Your task to perform on an android device: Open Amazon Image 0: 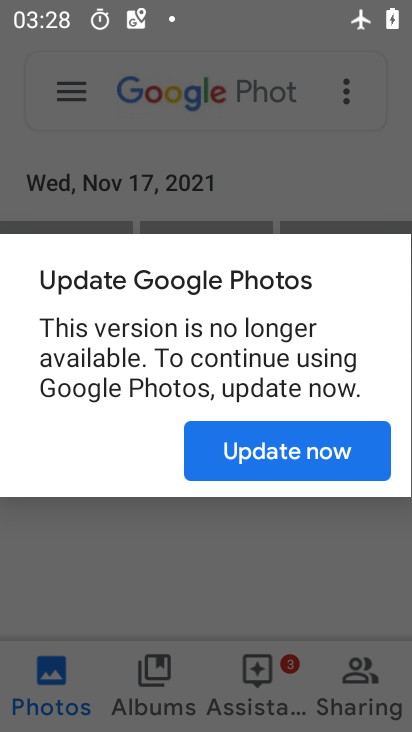
Step 0: press home button
Your task to perform on an android device: Open Amazon Image 1: 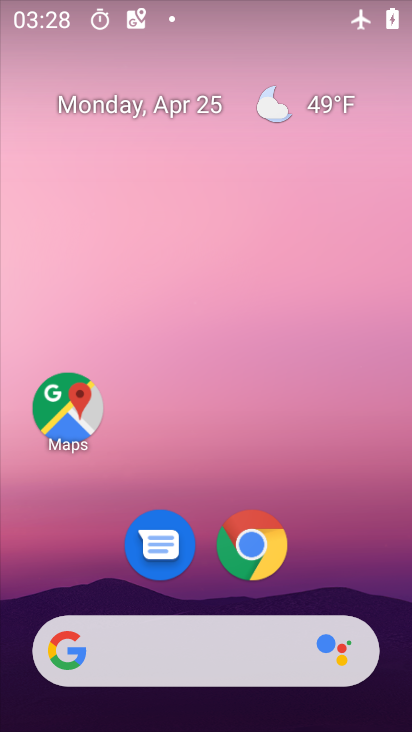
Step 1: click (251, 543)
Your task to perform on an android device: Open Amazon Image 2: 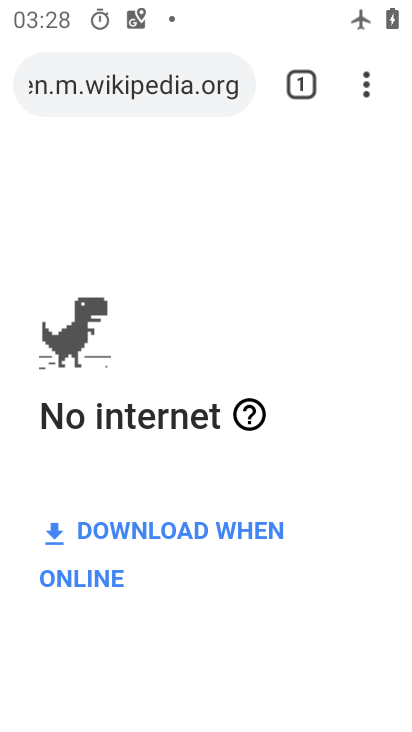
Step 2: click (203, 91)
Your task to perform on an android device: Open Amazon Image 3: 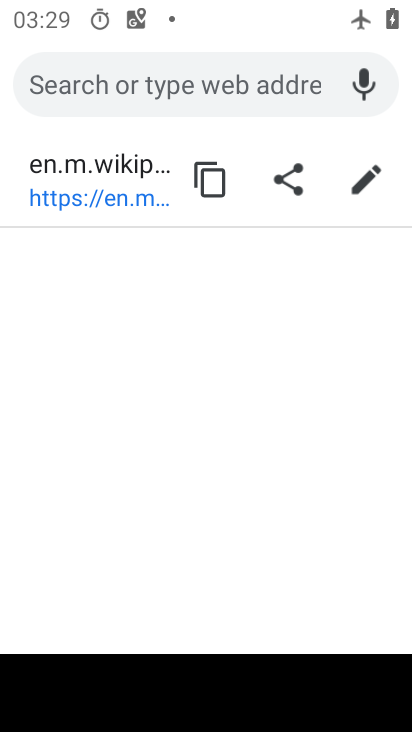
Step 3: type "Amazone"
Your task to perform on an android device: Open Amazon Image 4: 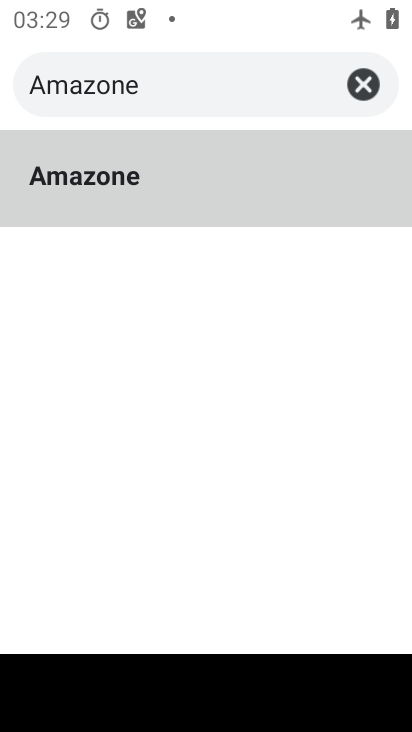
Step 4: click (153, 187)
Your task to perform on an android device: Open Amazon Image 5: 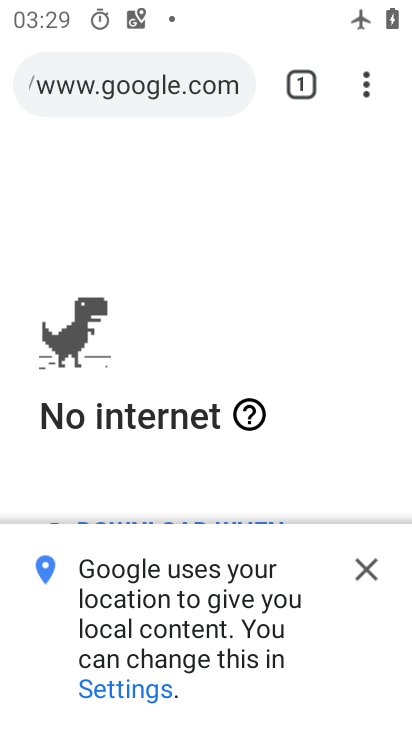
Step 5: click (381, 569)
Your task to perform on an android device: Open Amazon Image 6: 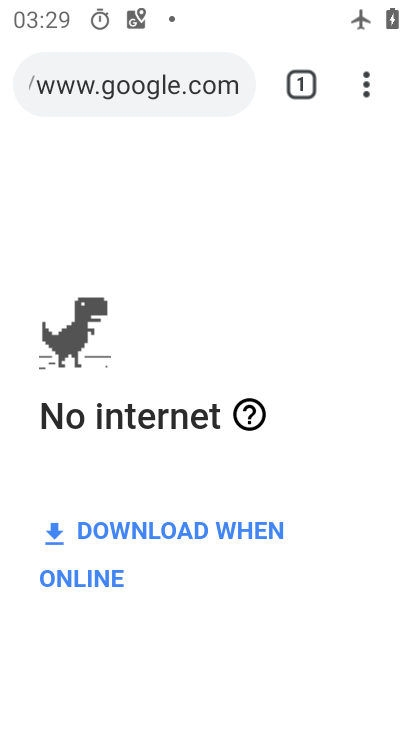
Step 6: task complete